Your task to perform on an android device: create a new album in the google photos Image 0: 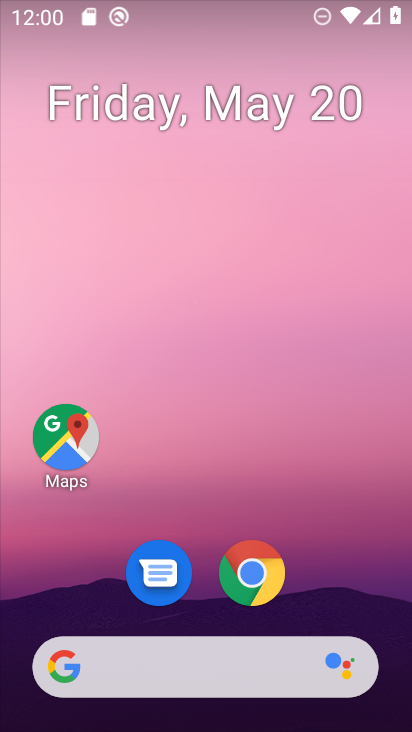
Step 0: drag from (255, 652) to (251, 81)
Your task to perform on an android device: create a new album in the google photos Image 1: 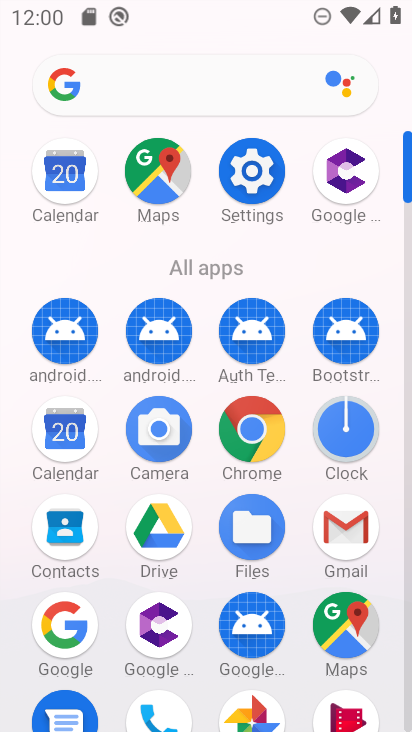
Step 1: click (253, 698)
Your task to perform on an android device: create a new album in the google photos Image 2: 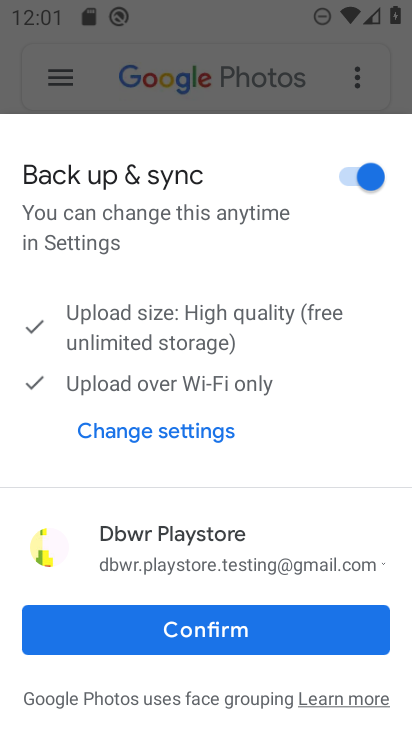
Step 2: click (190, 635)
Your task to perform on an android device: create a new album in the google photos Image 3: 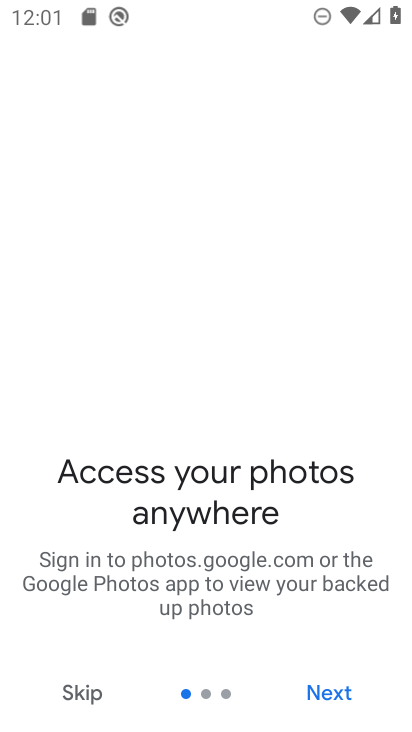
Step 3: click (332, 687)
Your task to perform on an android device: create a new album in the google photos Image 4: 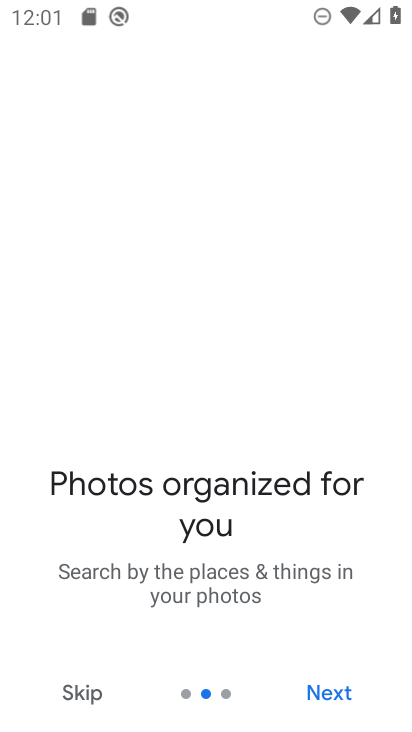
Step 4: click (332, 687)
Your task to perform on an android device: create a new album in the google photos Image 5: 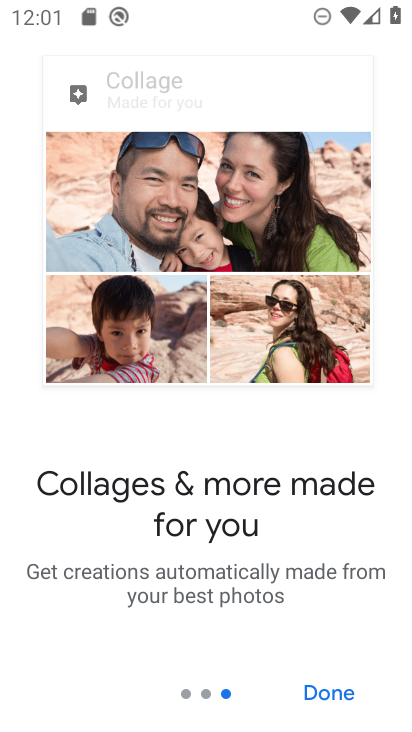
Step 5: click (322, 685)
Your task to perform on an android device: create a new album in the google photos Image 6: 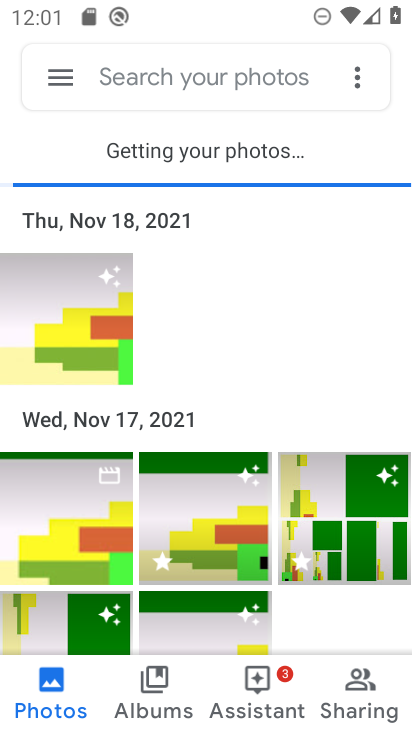
Step 6: click (357, 82)
Your task to perform on an android device: create a new album in the google photos Image 7: 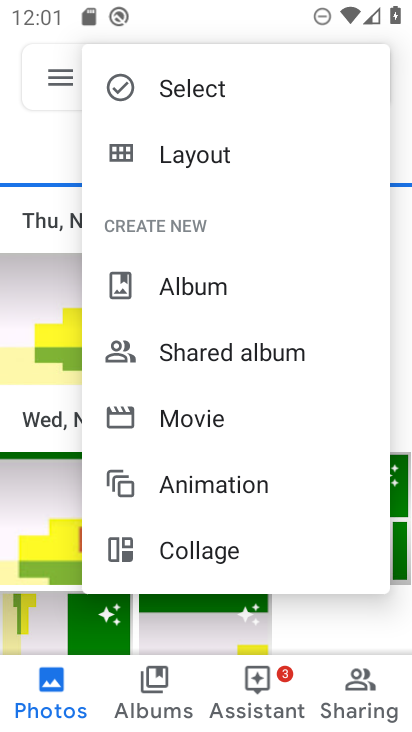
Step 7: click (194, 289)
Your task to perform on an android device: create a new album in the google photos Image 8: 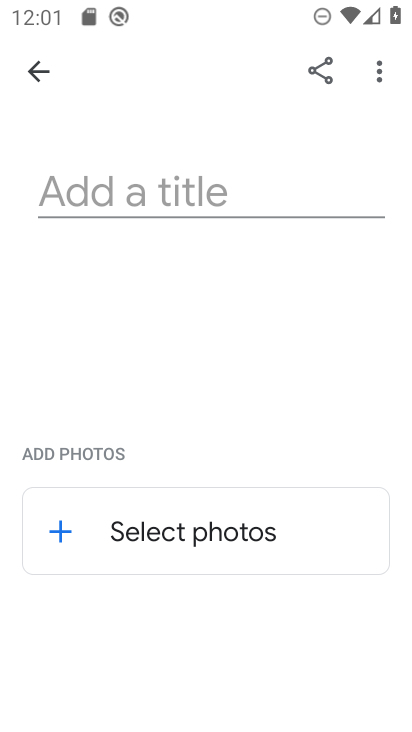
Step 8: click (165, 197)
Your task to perform on an android device: create a new album in the google photos Image 9: 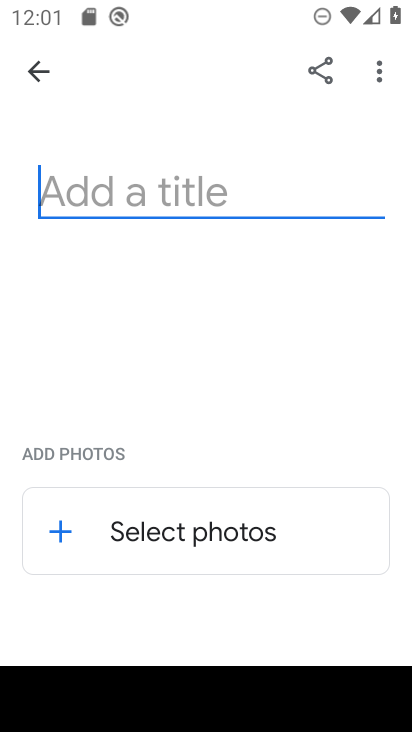
Step 9: type "llll"
Your task to perform on an android device: create a new album in the google photos Image 10: 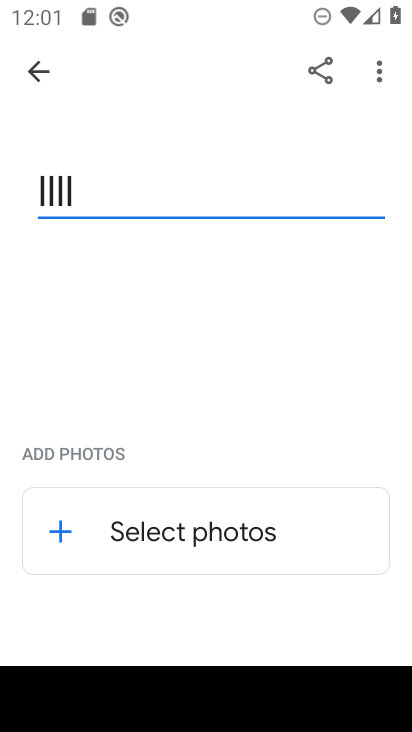
Step 10: click (175, 351)
Your task to perform on an android device: create a new album in the google photos Image 11: 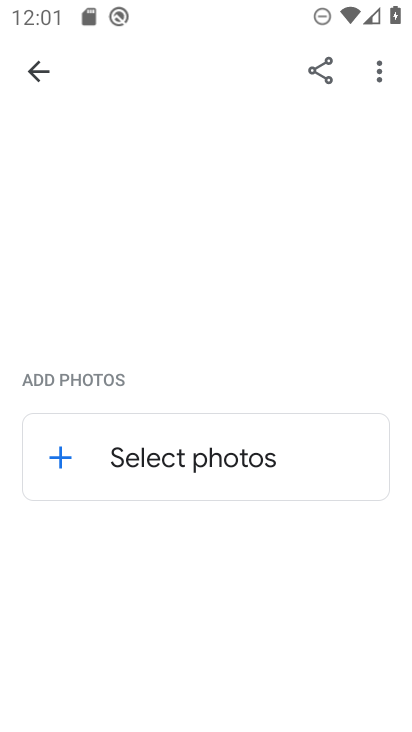
Step 11: click (64, 449)
Your task to perform on an android device: create a new album in the google photos Image 12: 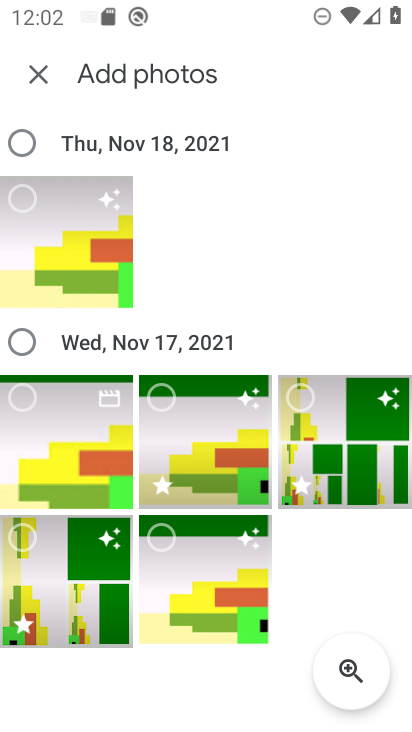
Step 12: click (161, 392)
Your task to perform on an android device: create a new album in the google photos Image 13: 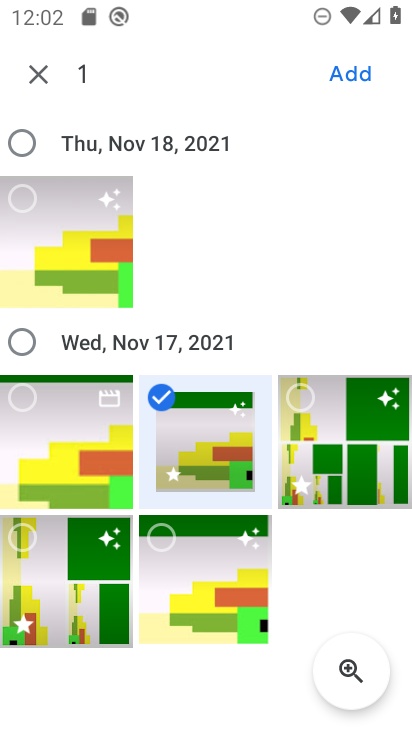
Step 13: click (21, 393)
Your task to perform on an android device: create a new album in the google photos Image 14: 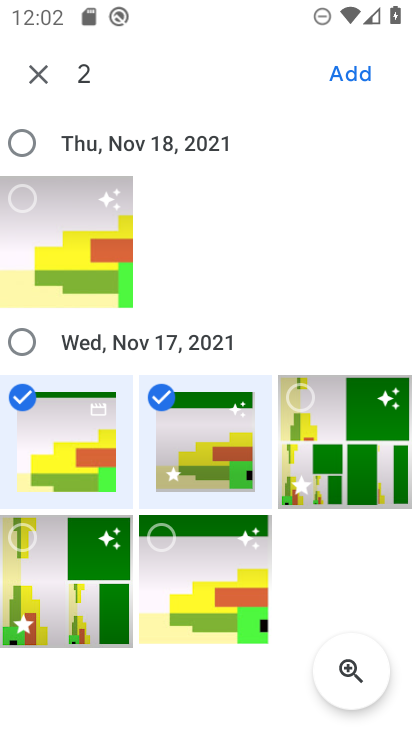
Step 14: click (350, 73)
Your task to perform on an android device: create a new album in the google photos Image 15: 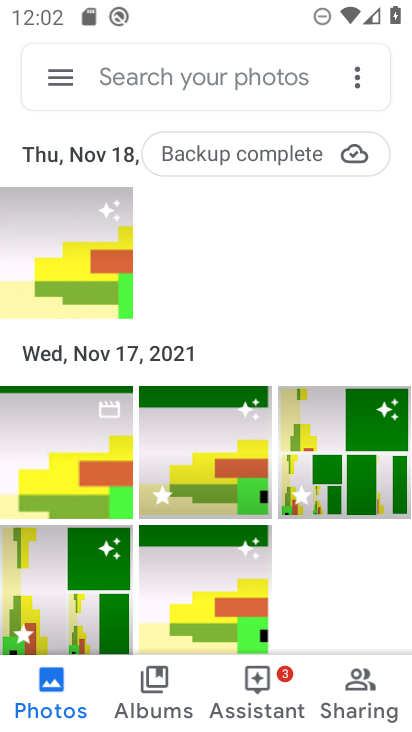
Step 15: task complete